Your task to perform on an android device: What's on my calendar today? Image 0: 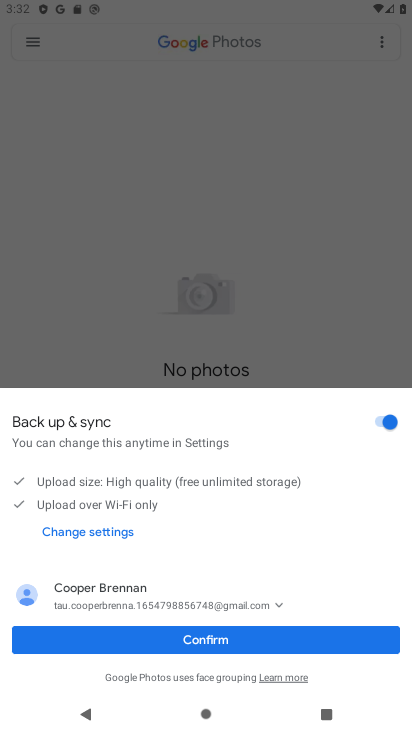
Step 0: click (213, 645)
Your task to perform on an android device: What's on my calendar today? Image 1: 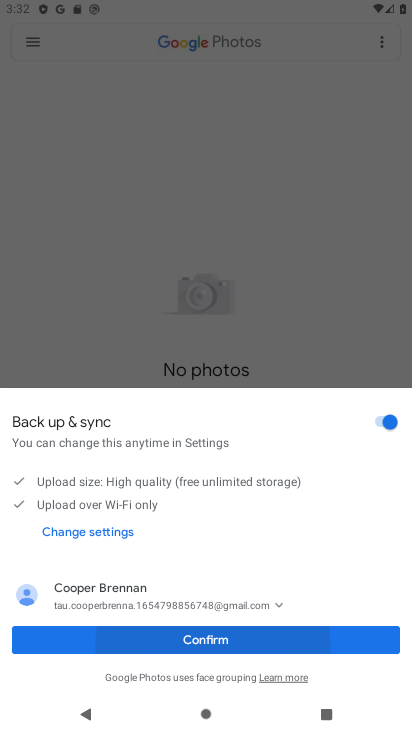
Step 1: click (211, 639)
Your task to perform on an android device: What's on my calendar today? Image 2: 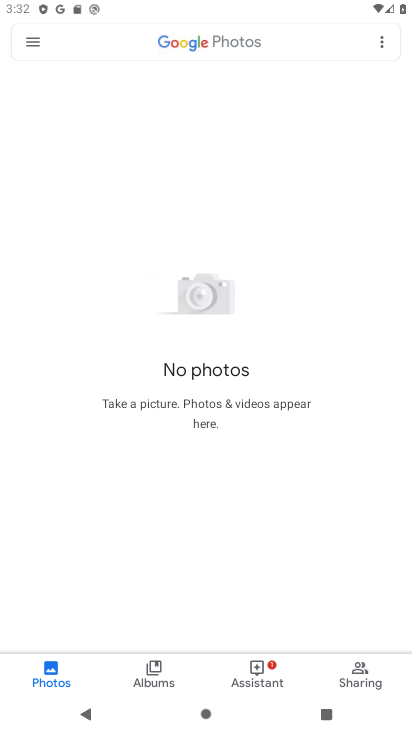
Step 2: click (212, 639)
Your task to perform on an android device: What's on my calendar today? Image 3: 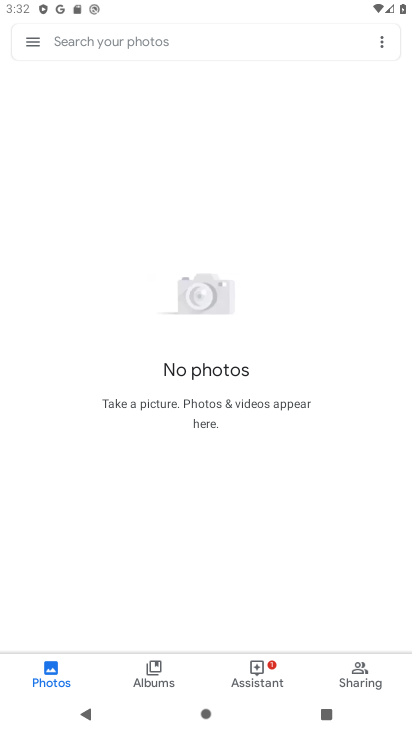
Step 3: press back button
Your task to perform on an android device: What's on my calendar today? Image 4: 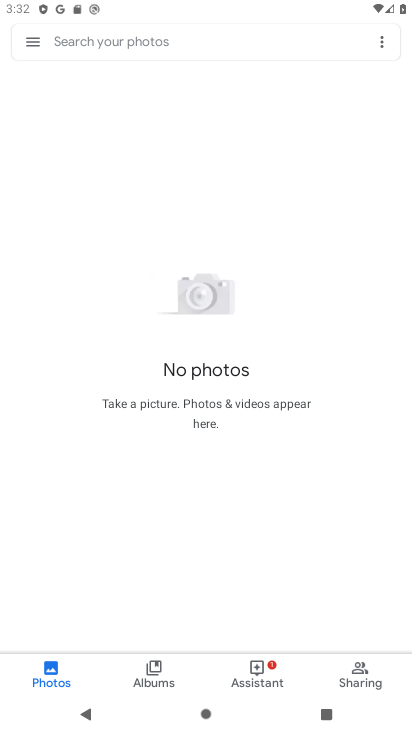
Step 4: press back button
Your task to perform on an android device: What's on my calendar today? Image 5: 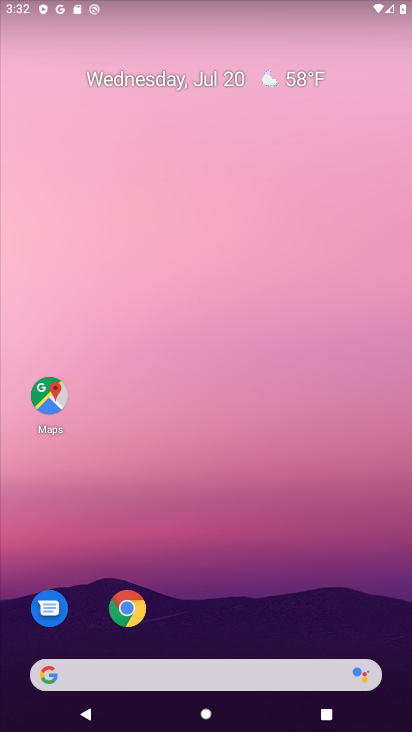
Step 5: drag from (267, 601) to (246, 298)
Your task to perform on an android device: What's on my calendar today? Image 6: 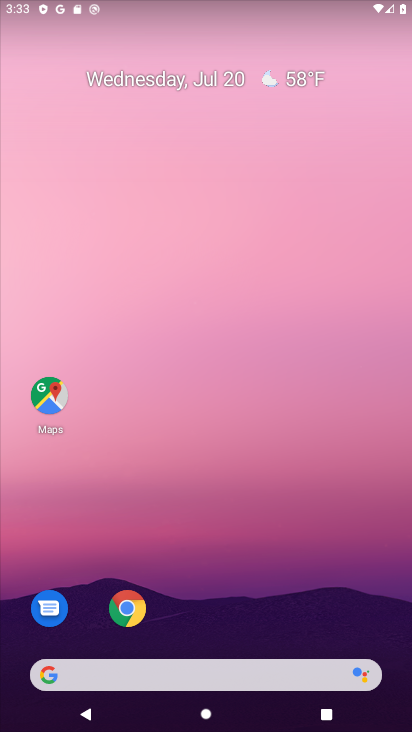
Step 6: drag from (281, 658) to (236, 206)
Your task to perform on an android device: What's on my calendar today? Image 7: 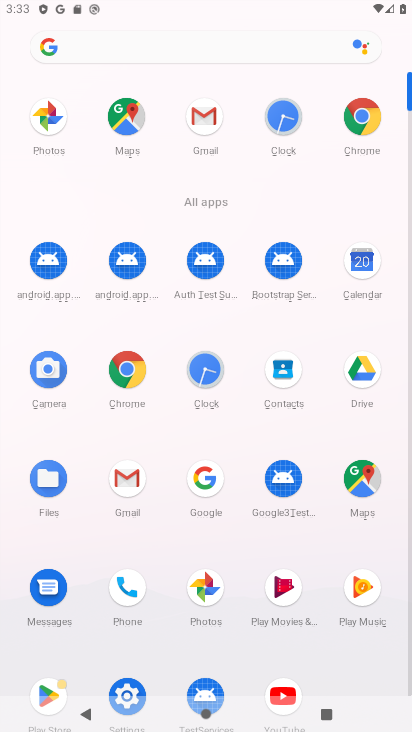
Step 7: click (357, 250)
Your task to perform on an android device: What's on my calendar today? Image 8: 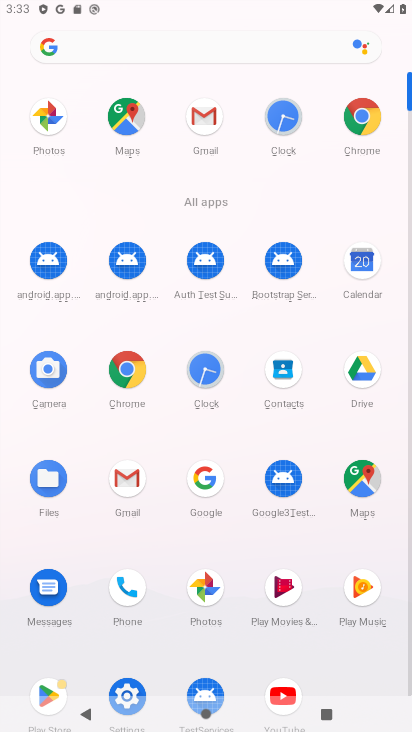
Step 8: click (362, 254)
Your task to perform on an android device: What's on my calendar today? Image 9: 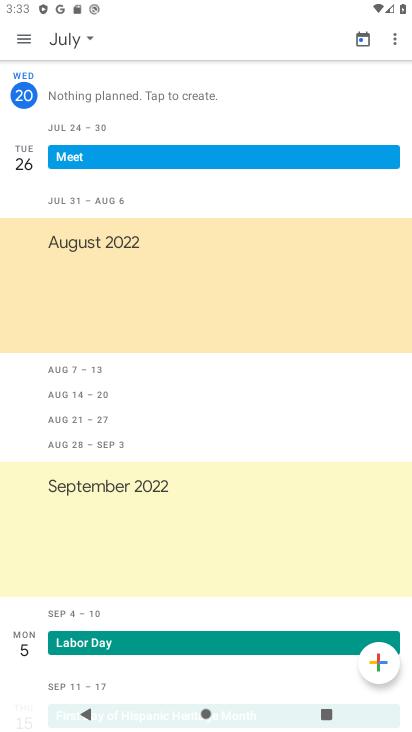
Step 9: click (89, 32)
Your task to perform on an android device: What's on my calendar today? Image 10: 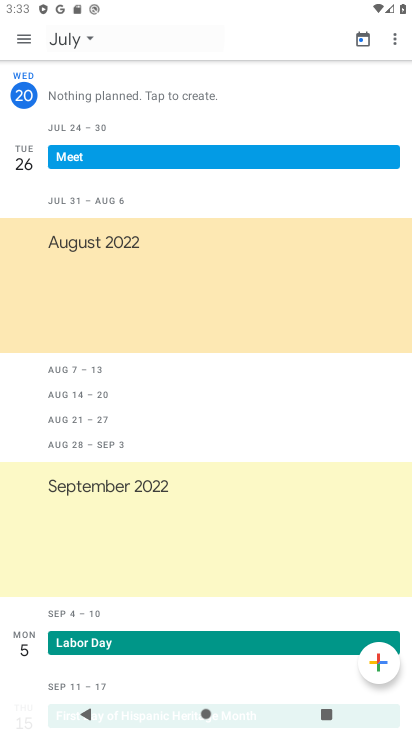
Step 10: click (89, 32)
Your task to perform on an android device: What's on my calendar today? Image 11: 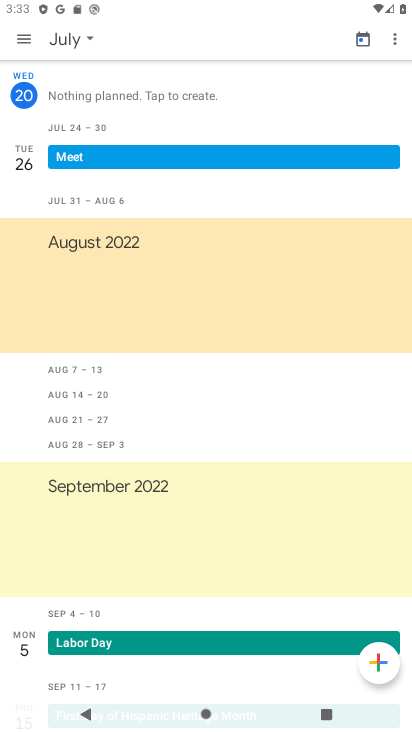
Step 11: click (98, 38)
Your task to perform on an android device: What's on my calendar today? Image 12: 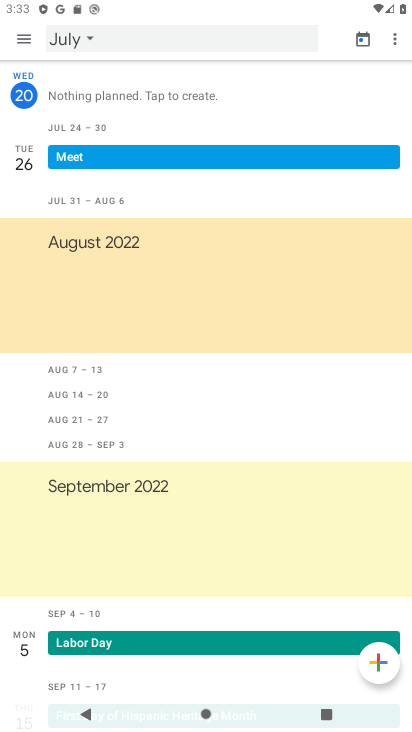
Step 12: click (98, 38)
Your task to perform on an android device: What's on my calendar today? Image 13: 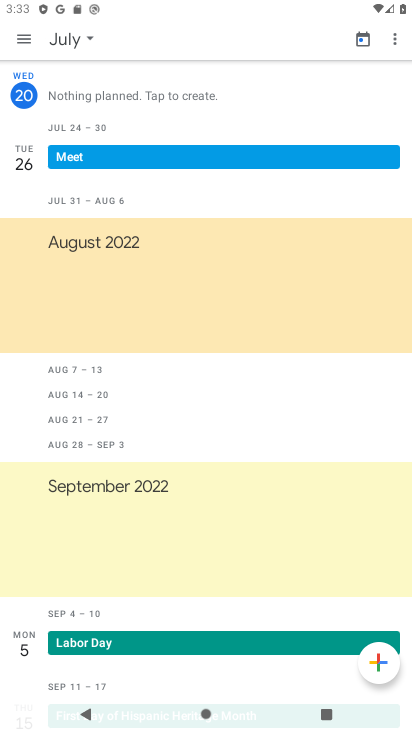
Step 13: click (92, 40)
Your task to perform on an android device: What's on my calendar today? Image 14: 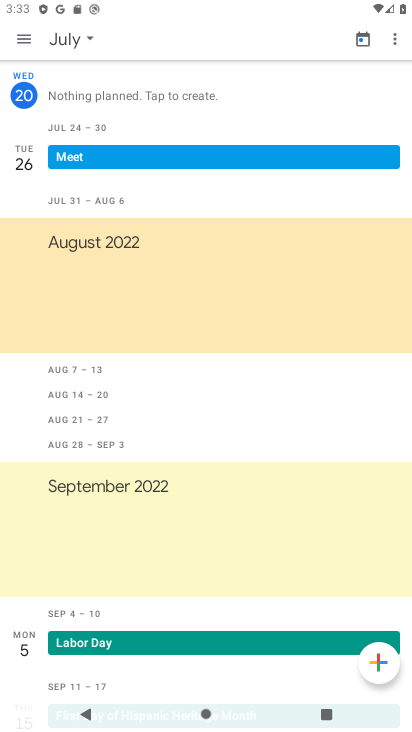
Step 14: click (93, 40)
Your task to perform on an android device: What's on my calendar today? Image 15: 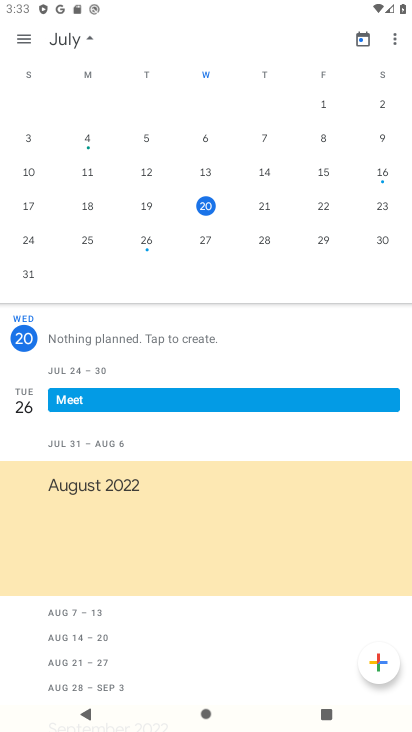
Step 15: task complete